Your task to perform on an android device: Add logitech g502 to the cart on bestbuy Image 0: 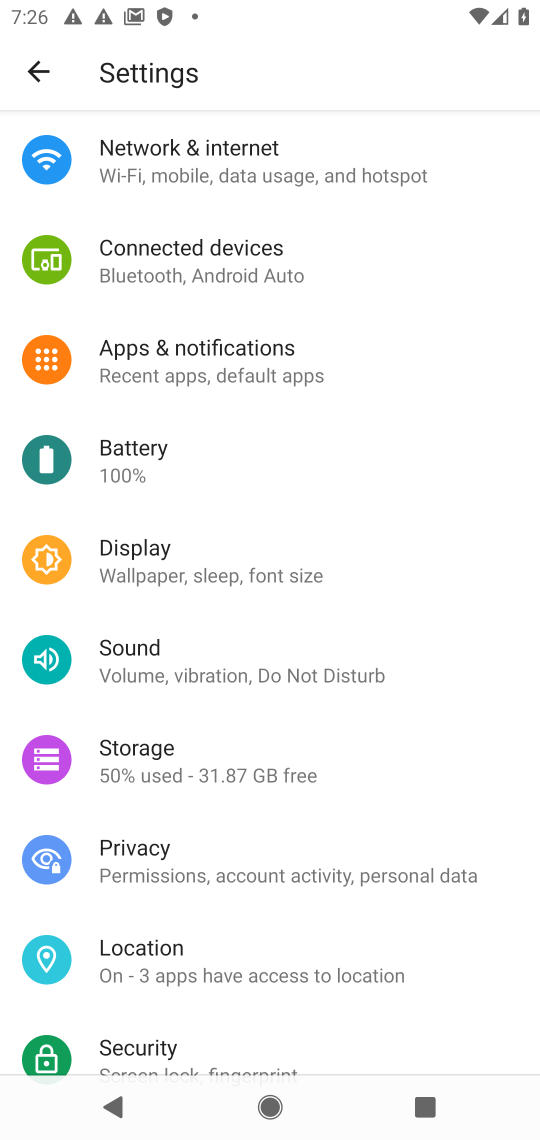
Step 0: press home button
Your task to perform on an android device: Add logitech g502 to the cart on bestbuy Image 1: 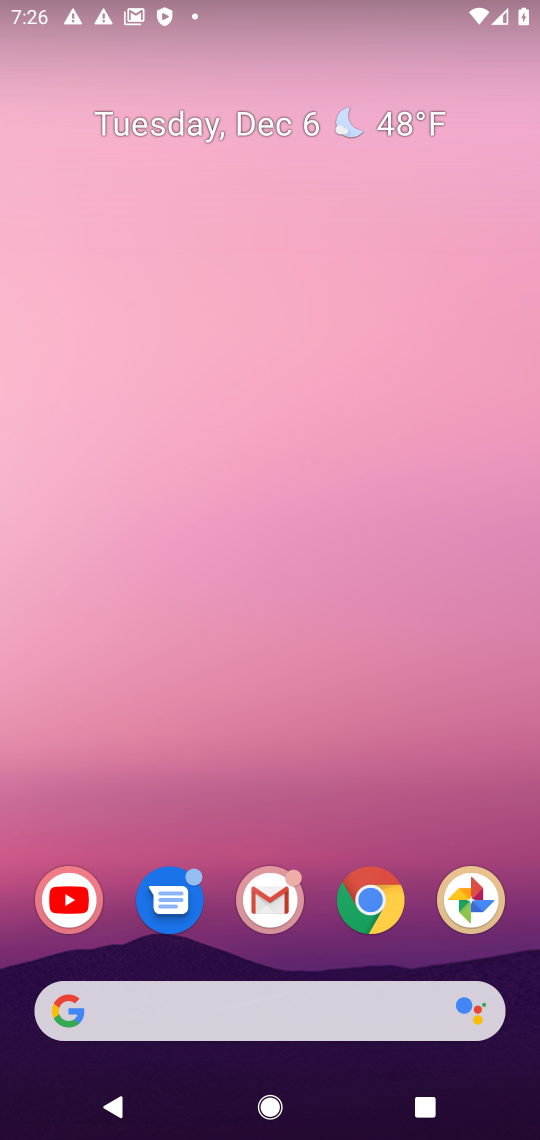
Step 1: drag from (247, 1026) to (156, 343)
Your task to perform on an android device: Add logitech g502 to the cart on bestbuy Image 2: 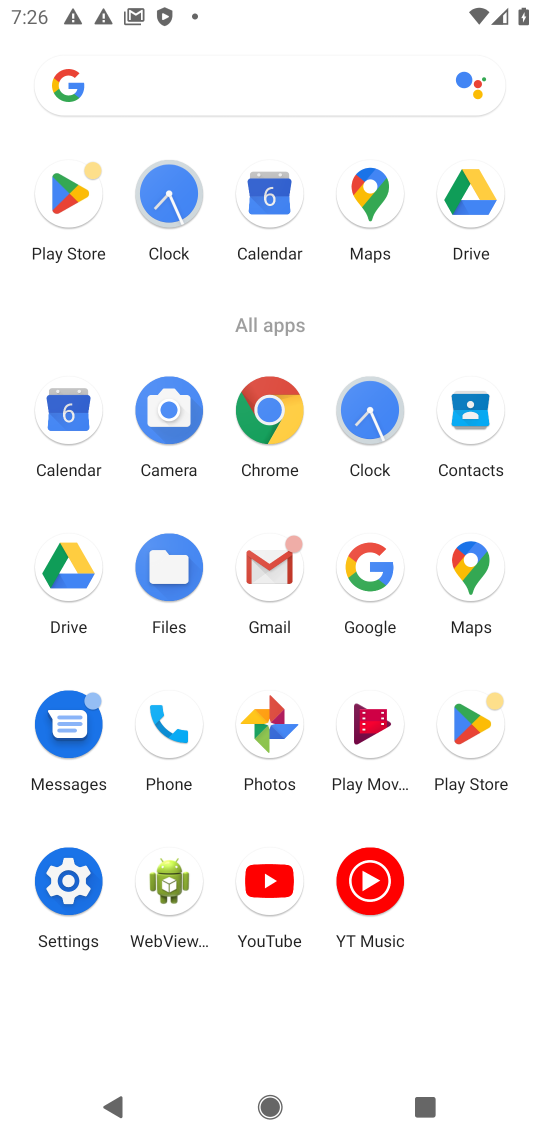
Step 2: click (364, 562)
Your task to perform on an android device: Add logitech g502 to the cart on bestbuy Image 3: 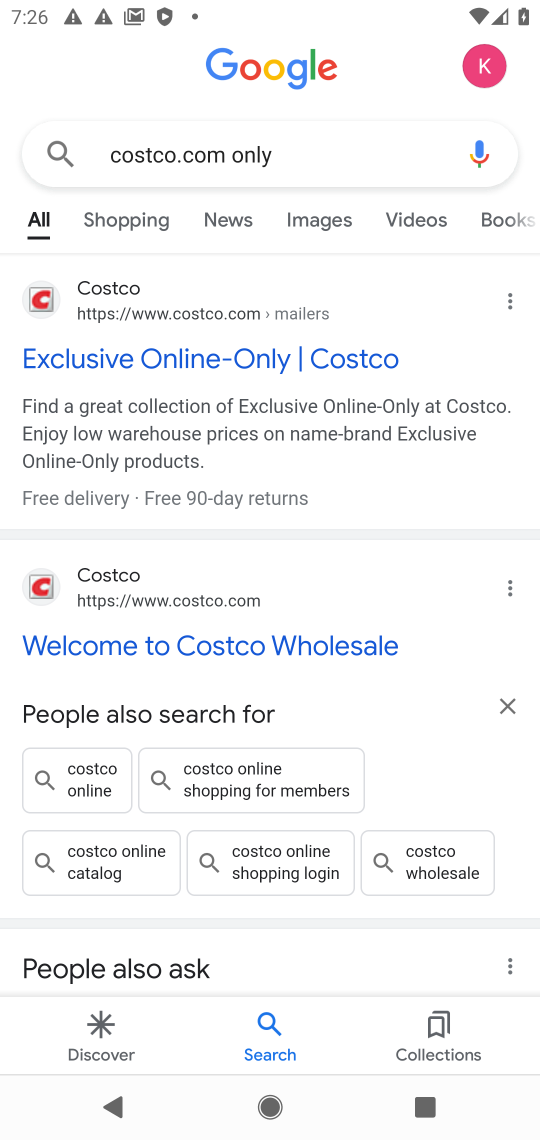
Step 3: click (198, 164)
Your task to perform on an android device: Add logitech g502 to the cart on bestbuy Image 4: 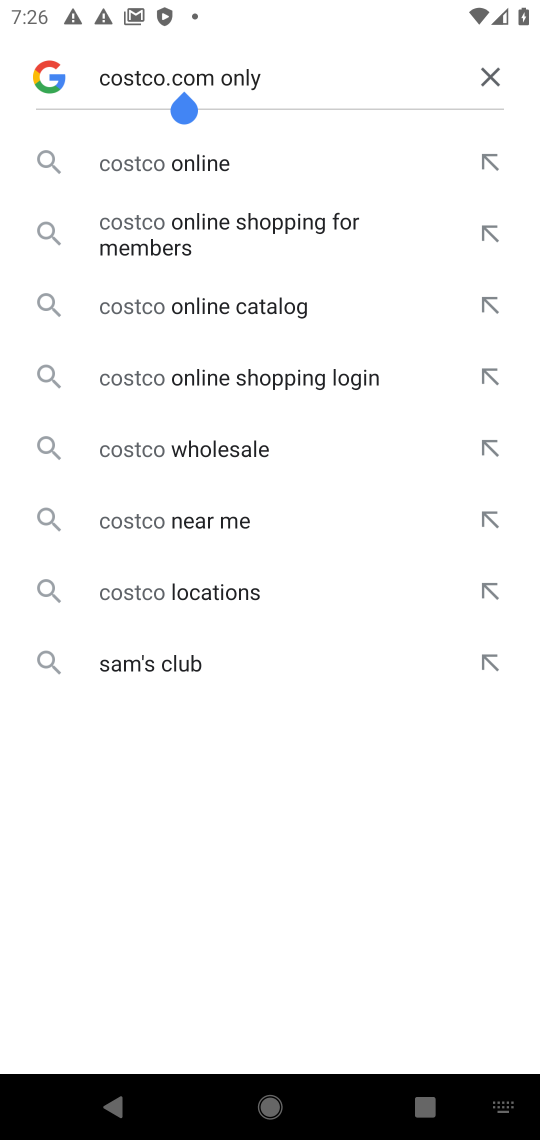
Step 4: click (505, 74)
Your task to perform on an android device: Add logitech g502 to the cart on bestbuy Image 5: 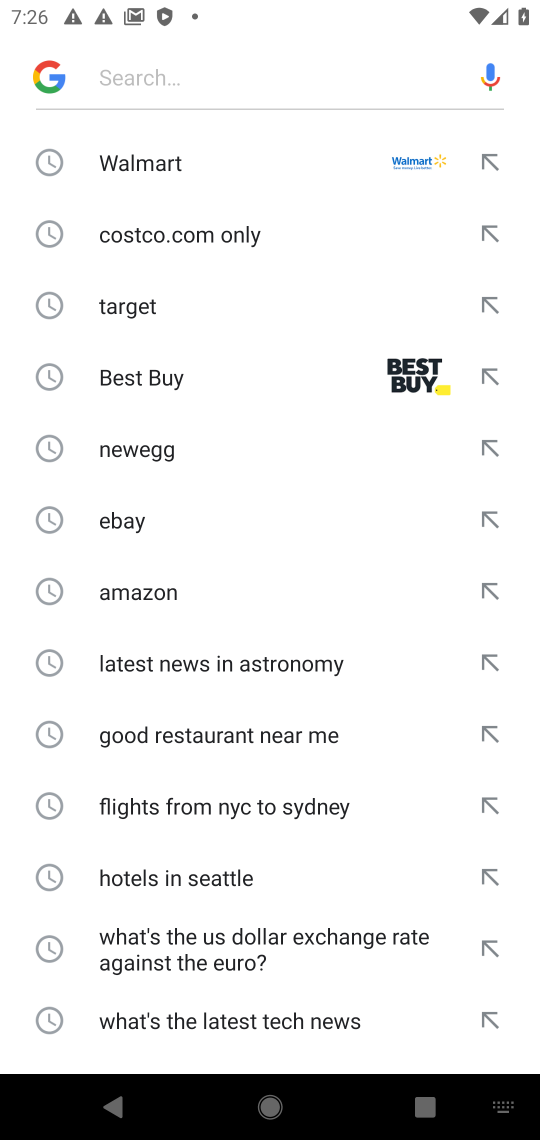
Step 5: click (410, 365)
Your task to perform on an android device: Add logitech g502 to the cart on bestbuy Image 6: 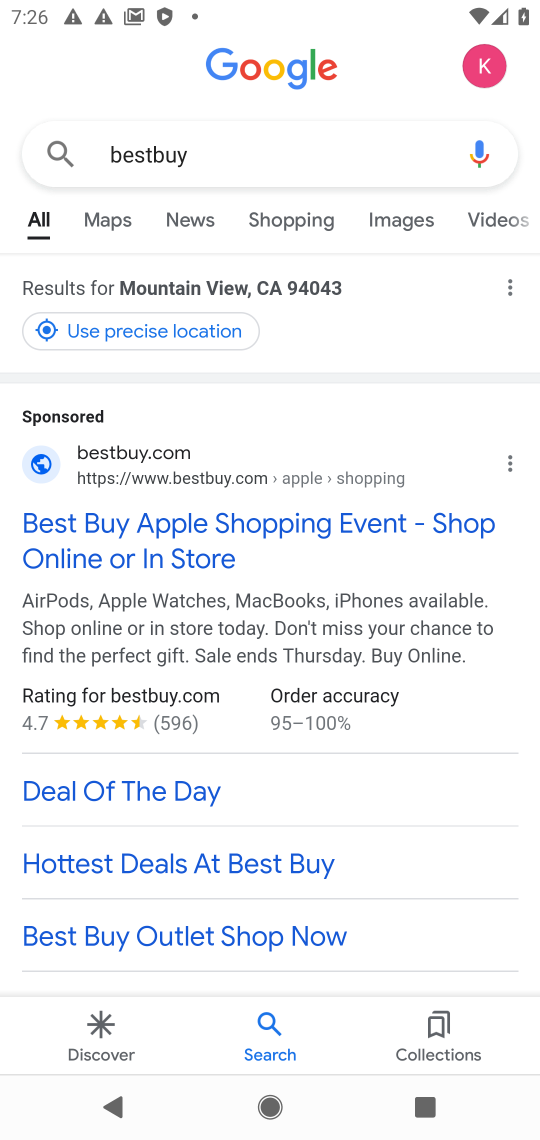
Step 6: click (163, 160)
Your task to perform on an android device: Add logitech g502 to the cart on bestbuy Image 7: 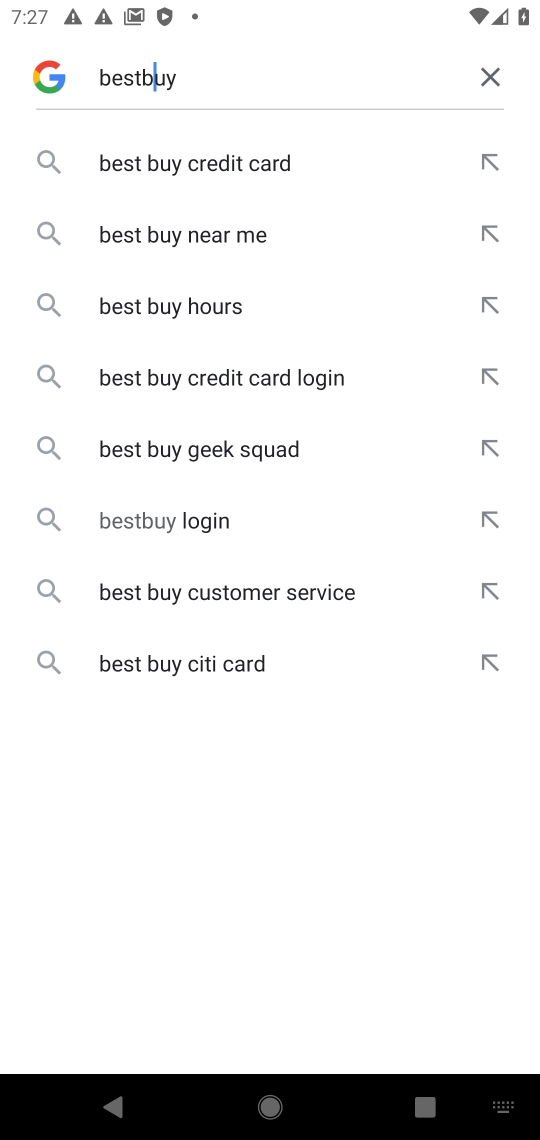
Step 7: click (140, 523)
Your task to perform on an android device: Add logitech g502 to the cart on bestbuy Image 8: 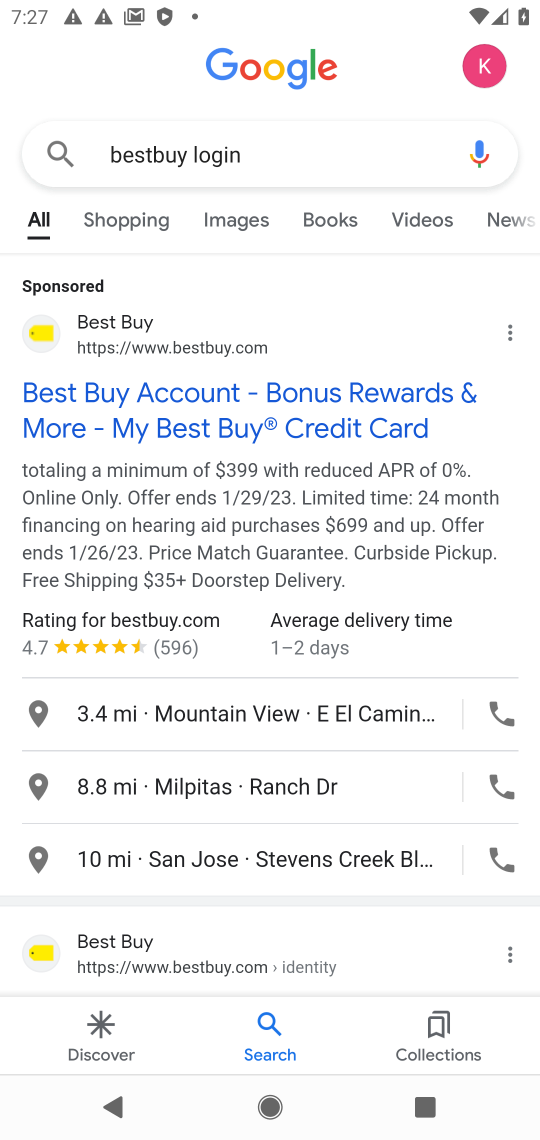
Step 8: click (147, 412)
Your task to perform on an android device: Add logitech g502 to the cart on bestbuy Image 9: 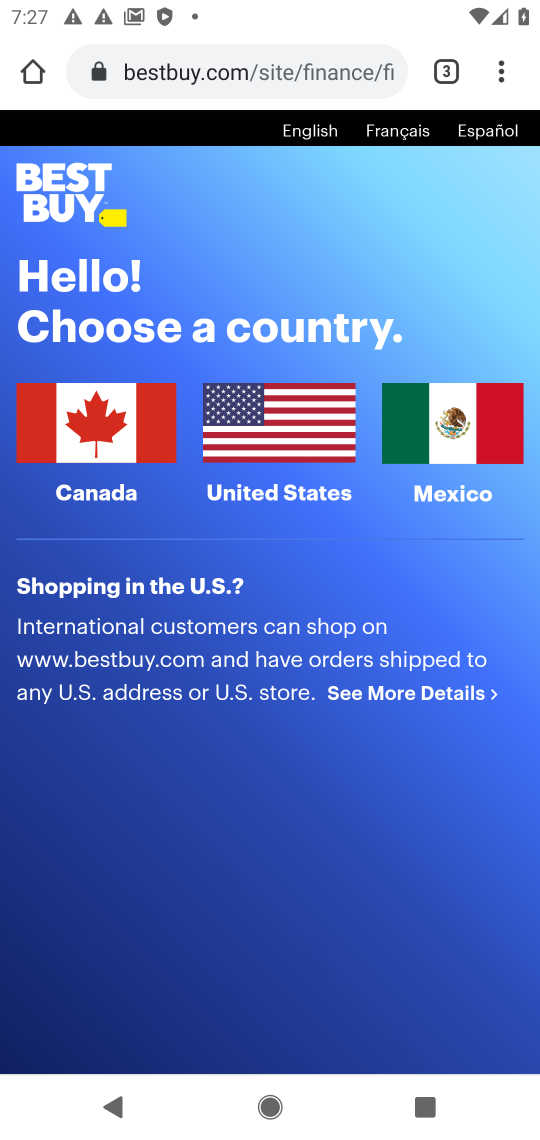
Step 9: click (279, 422)
Your task to perform on an android device: Add logitech g502 to the cart on bestbuy Image 10: 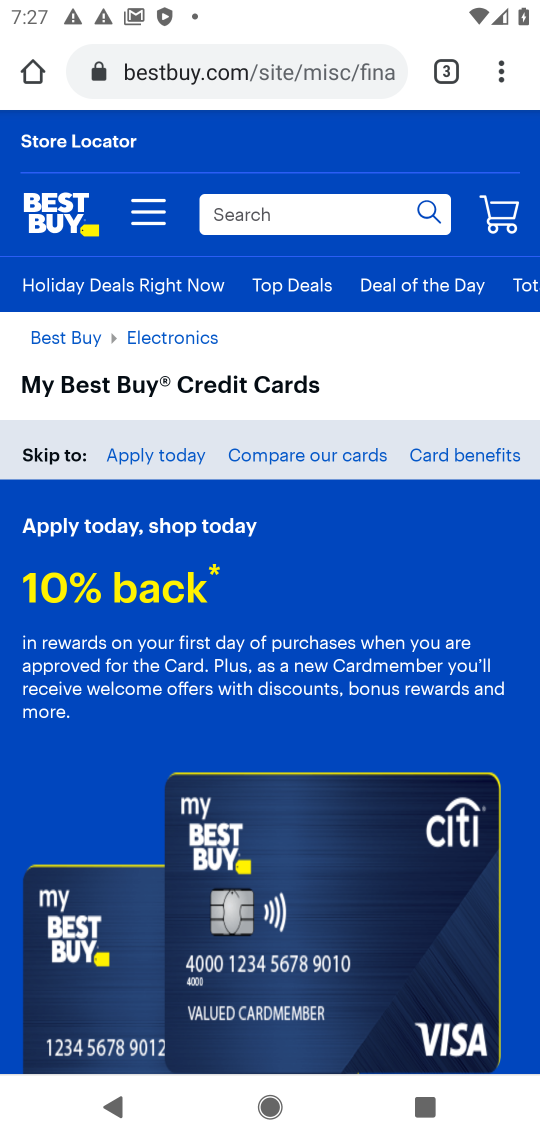
Step 10: click (245, 208)
Your task to perform on an android device: Add logitech g502 to the cart on bestbuy Image 11: 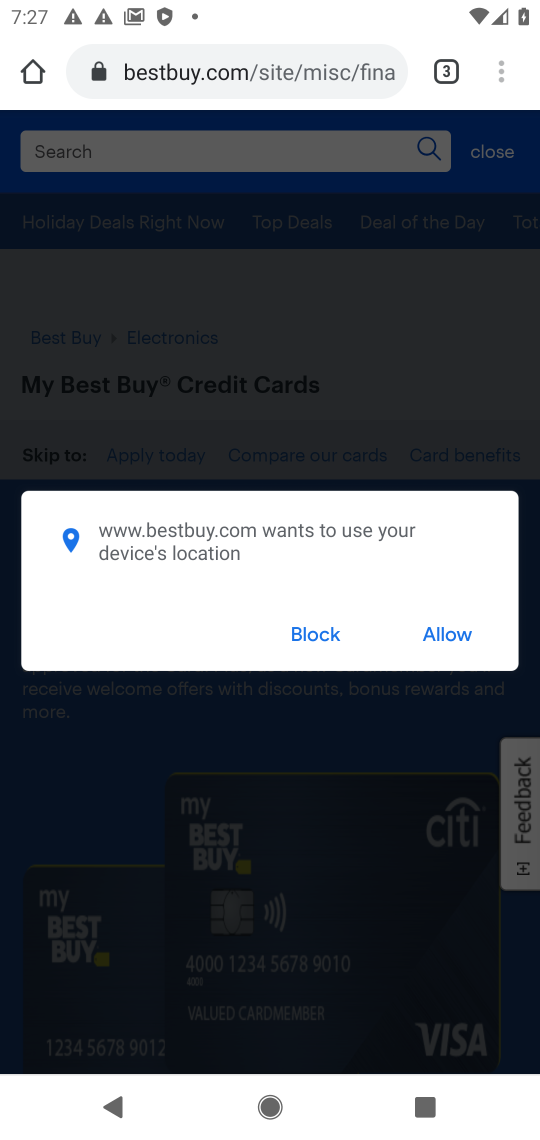
Step 11: click (422, 628)
Your task to perform on an android device: Add logitech g502 to the cart on bestbuy Image 12: 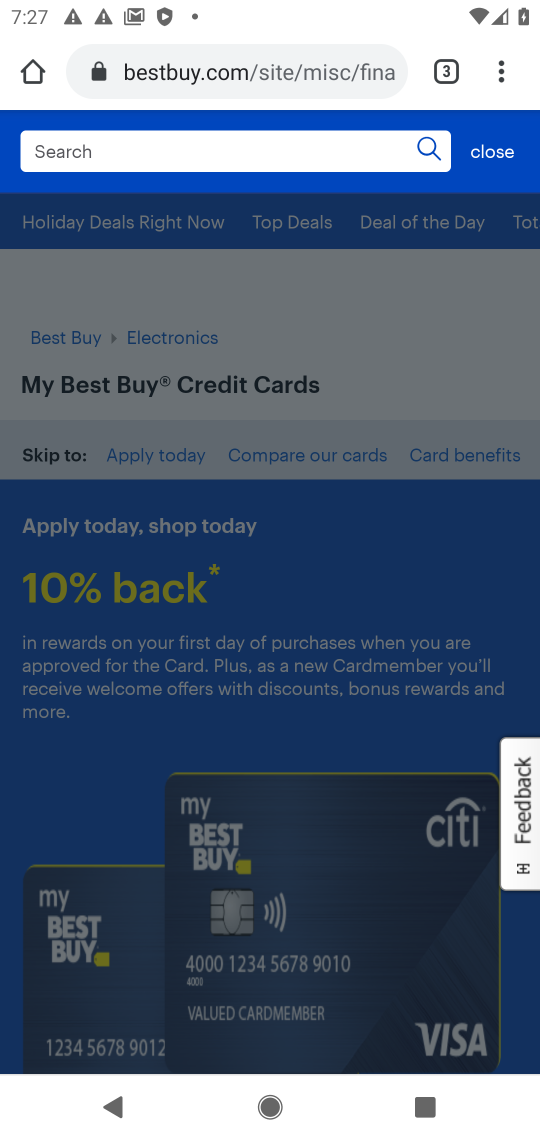
Step 12: click (91, 149)
Your task to perform on an android device: Add logitech g502 to the cart on bestbuy Image 13: 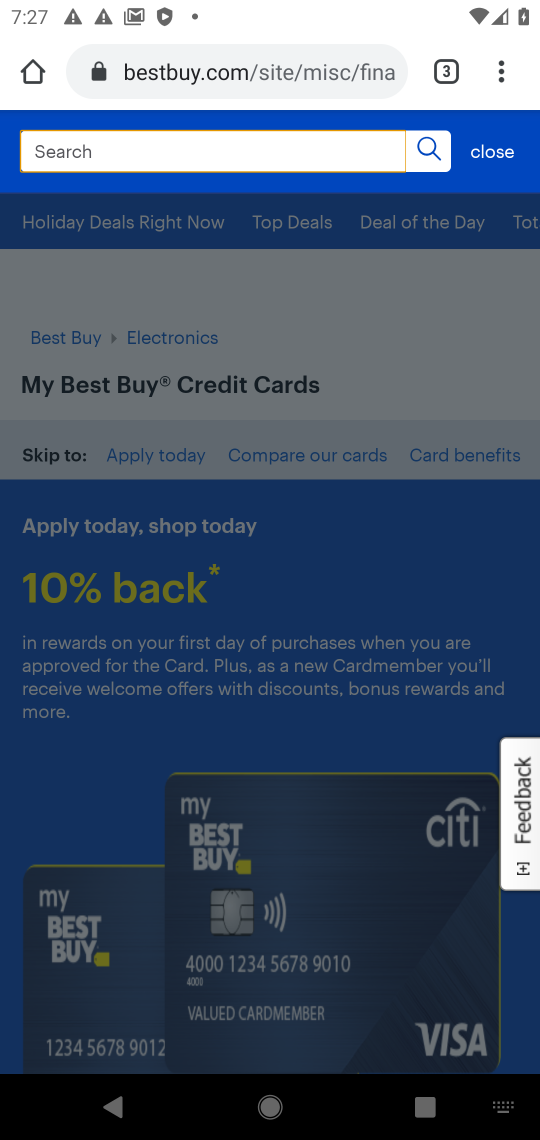
Step 13: type "logitech g502"
Your task to perform on an android device: Add logitech g502 to the cart on bestbuy Image 14: 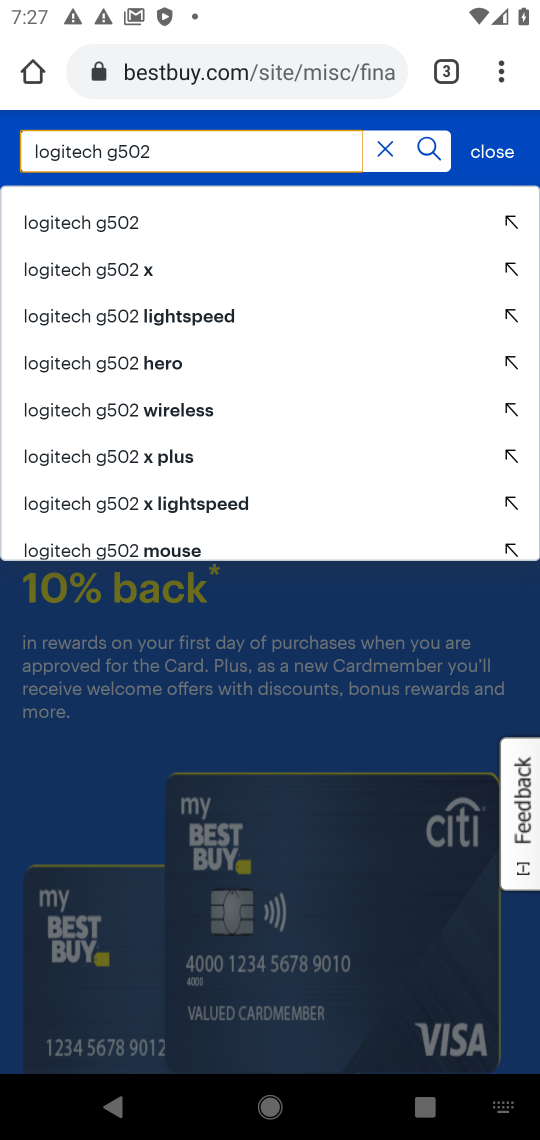
Step 14: click (101, 218)
Your task to perform on an android device: Add logitech g502 to the cart on bestbuy Image 15: 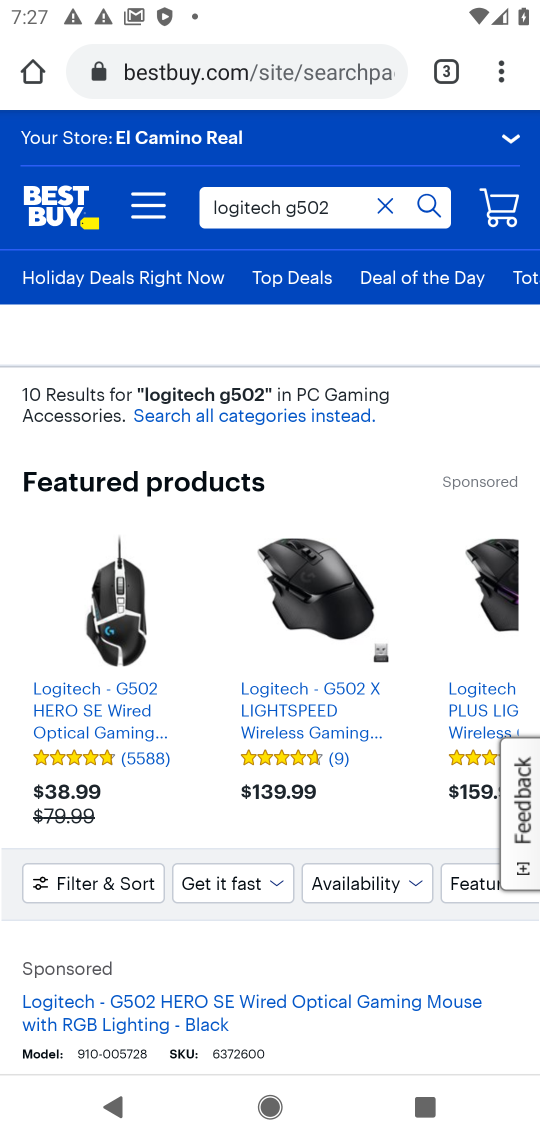
Step 15: drag from (215, 1029) to (267, 425)
Your task to perform on an android device: Add logitech g502 to the cart on bestbuy Image 16: 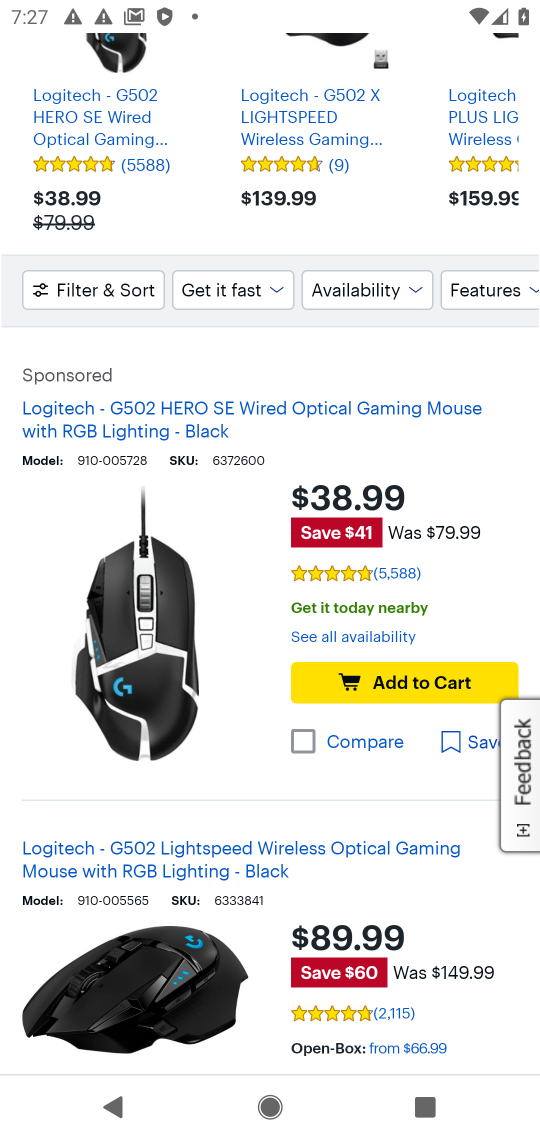
Step 16: click (389, 676)
Your task to perform on an android device: Add logitech g502 to the cart on bestbuy Image 17: 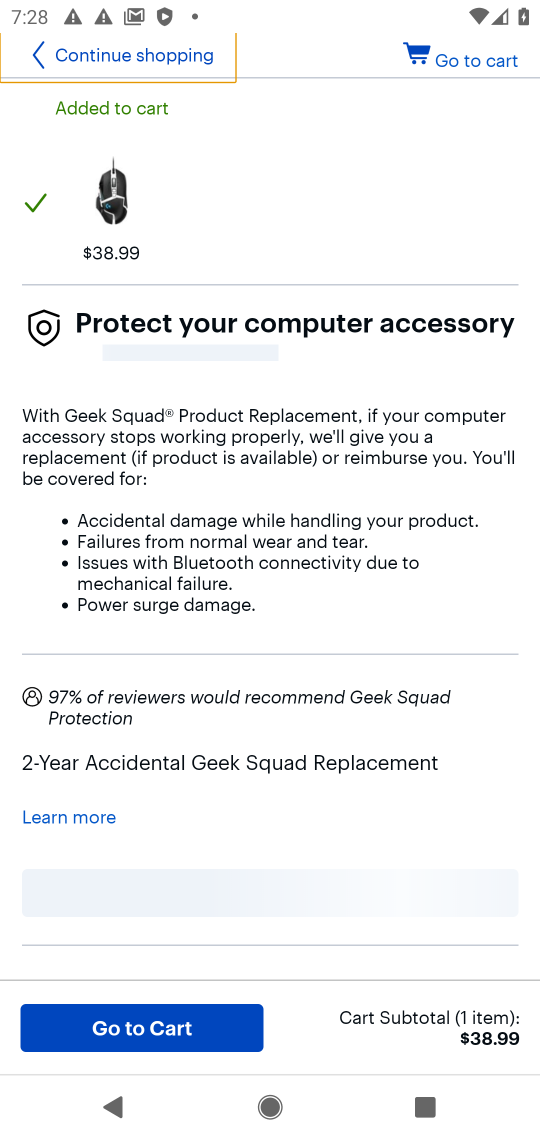
Step 17: task complete